Your task to perform on an android device: Go to internet settings Image 0: 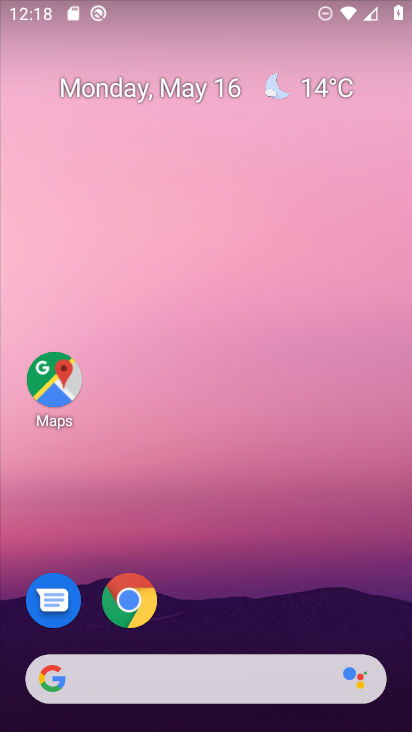
Step 0: drag from (399, 640) to (313, 119)
Your task to perform on an android device: Go to internet settings Image 1: 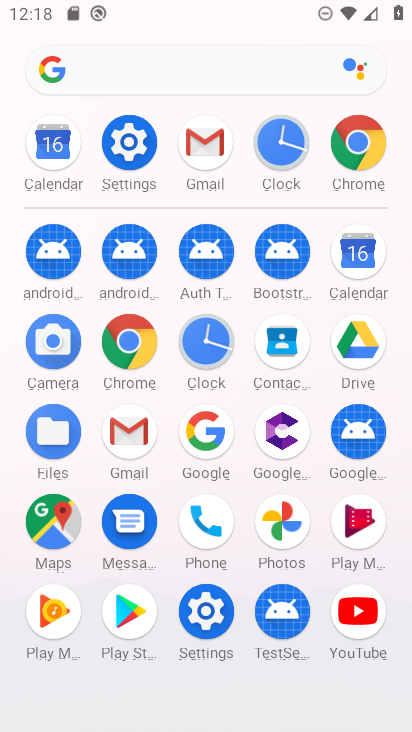
Step 1: click (207, 615)
Your task to perform on an android device: Go to internet settings Image 2: 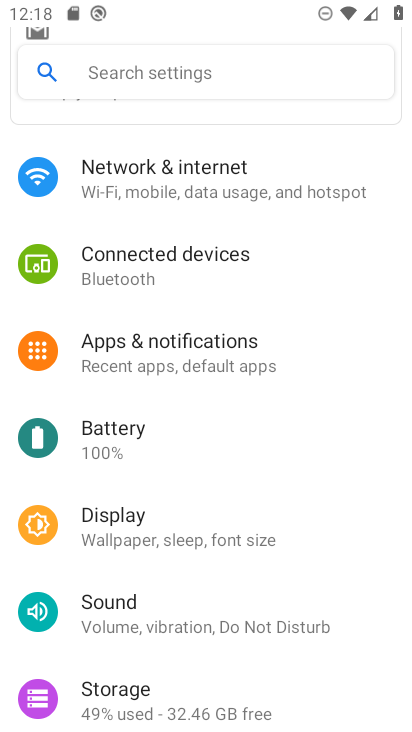
Step 2: click (151, 174)
Your task to perform on an android device: Go to internet settings Image 3: 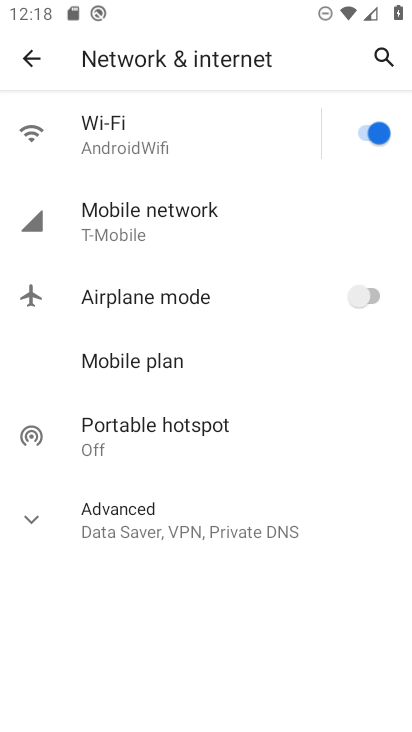
Step 3: click (157, 222)
Your task to perform on an android device: Go to internet settings Image 4: 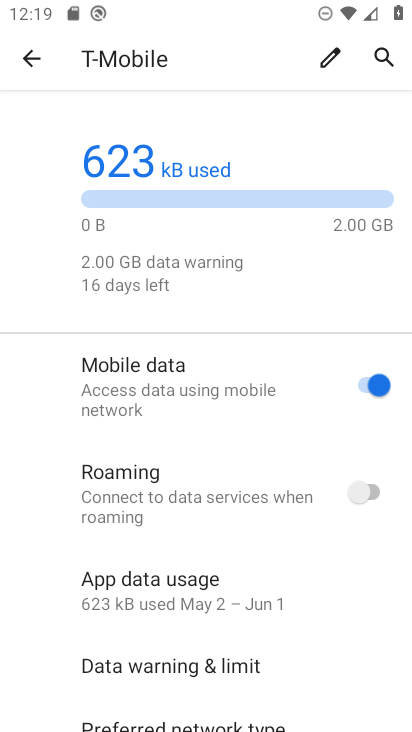
Step 4: drag from (309, 643) to (292, 200)
Your task to perform on an android device: Go to internet settings Image 5: 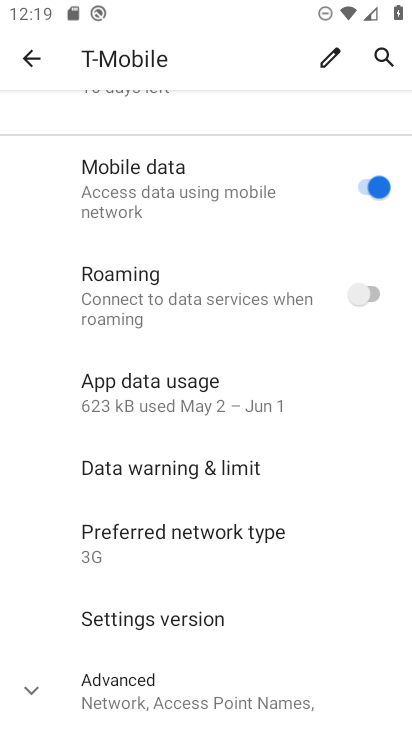
Step 5: click (33, 685)
Your task to perform on an android device: Go to internet settings Image 6: 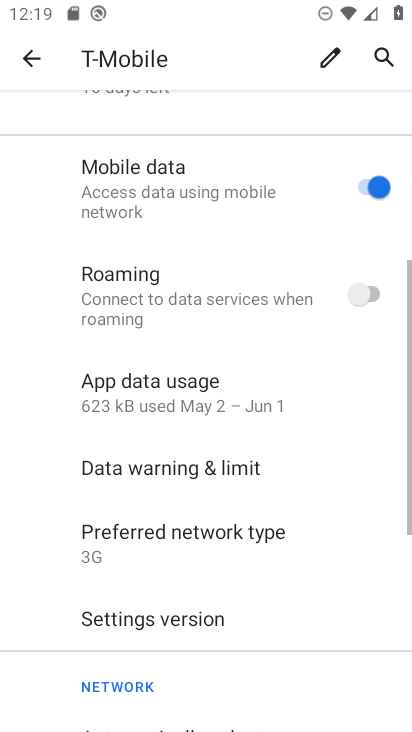
Step 6: task complete